Your task to perform on an android device: Open Youtube and go to the subscriptions tab Image 0: 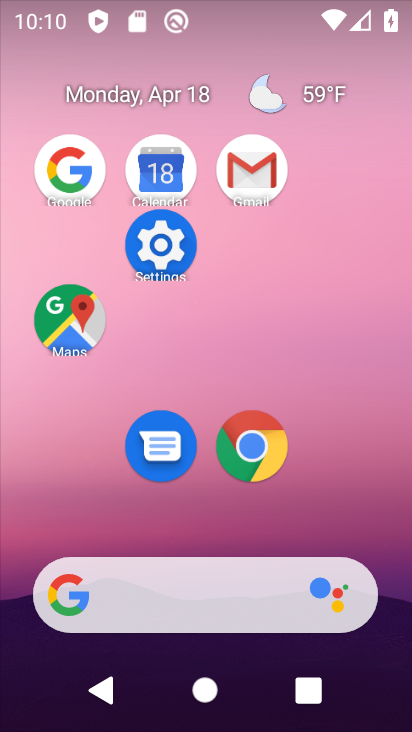
Step 0: drag from (180, 541) to (283, 78)
Your task to perform on an android device: Open Youtube and go to the subscriptions tab Image 1: 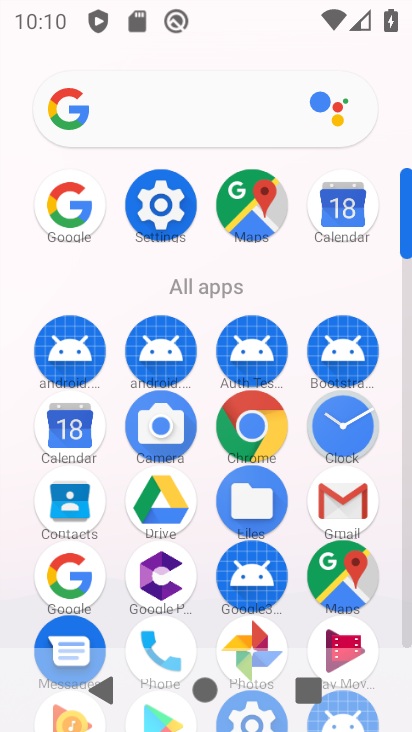
Step 1: drag from (154, 547) to (206, 201)
Your task to perform on an android device: Open Youtube and go to the subscriptions tab Image 2: 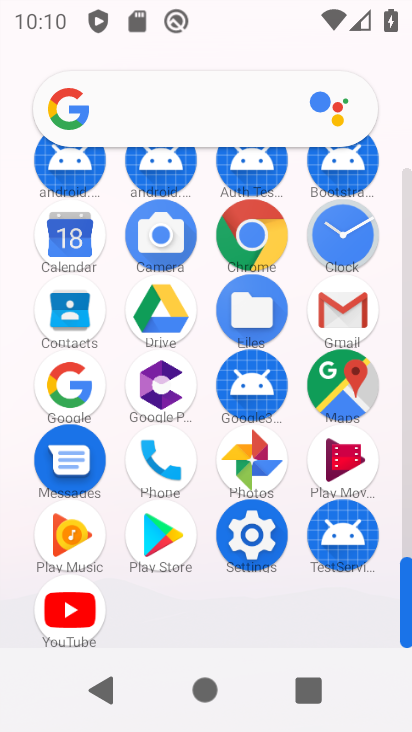
Step 2: click (58, 611)
Your task to perform on an android device: Open Youtube and go to the subscriptions tab Image 3: 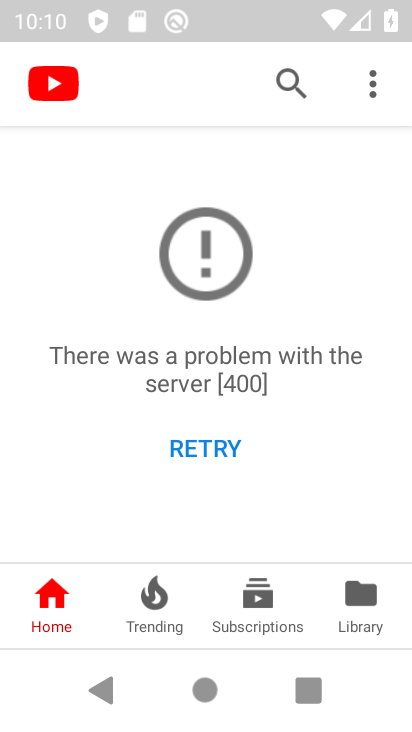
Step 3: click (251, 606)
Your task to perform on an android device: Open Youtube and go to the subscriptions tab Image 4: 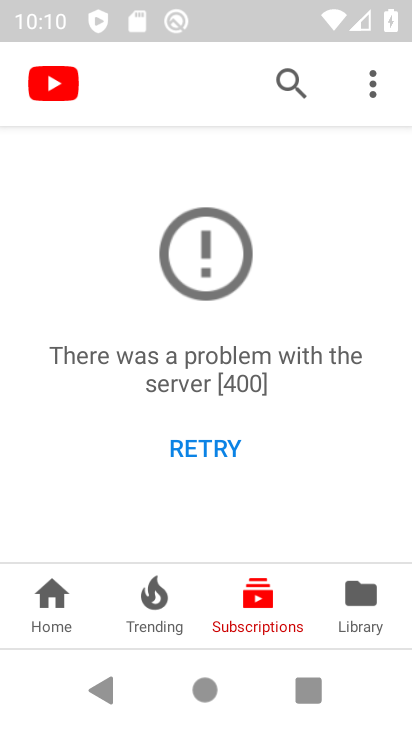
Step 4: task complete